Your task to perform on an android device: What's the weather going to be tomorrow? Image 0: 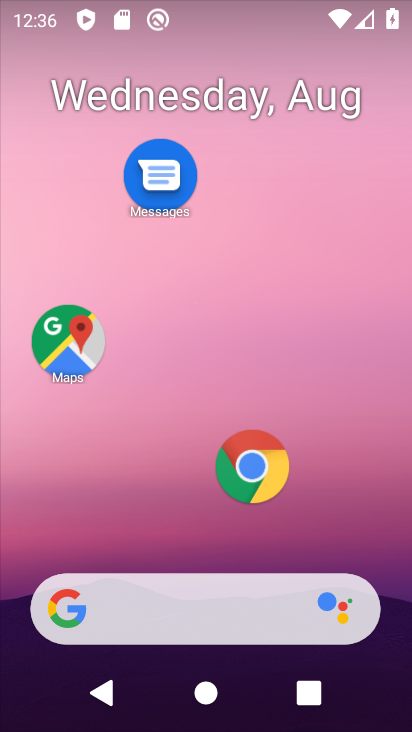
Step 0: drag from (203, 506) to (208, 159)
Your task to perform on an android device: What's the weather going to be tomorrow? Image 1: 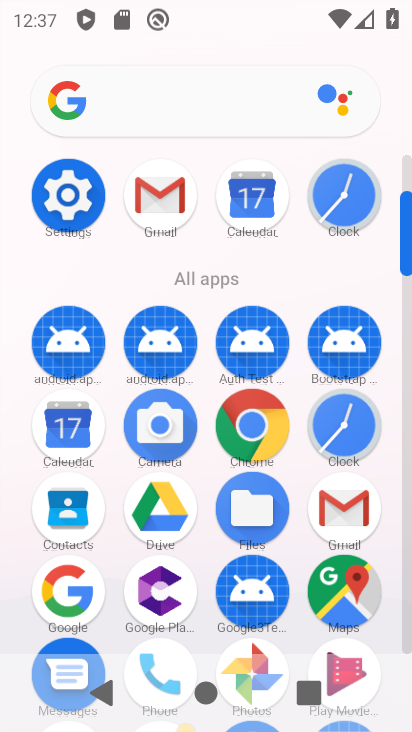
Step 1: click (64, 599)
Your task to perform on an android device: What's the weather going to be tomorrow? Image 2: 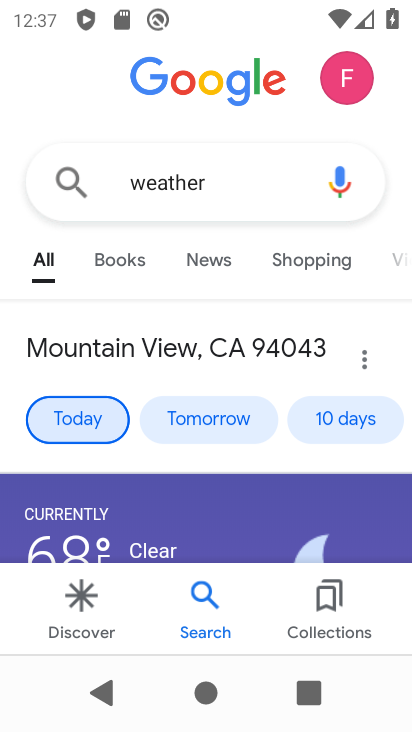
Step 2: click (224, 420)
Your task to perform on an android device: What's the weather going to be tomorrow? Image 3: 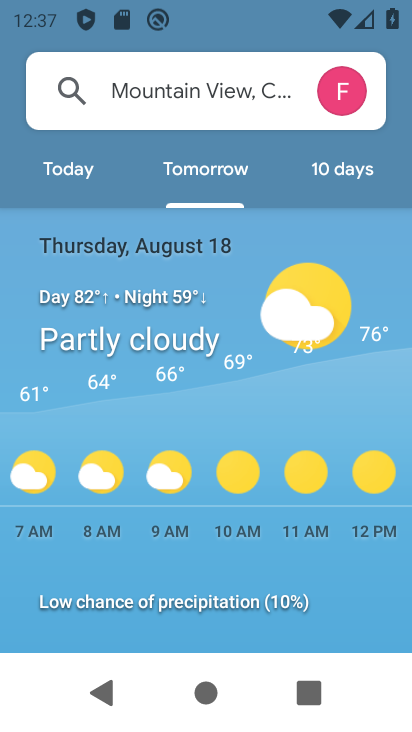
Step 3: task complete